Your task to perform on an android device: check android version Image 0: 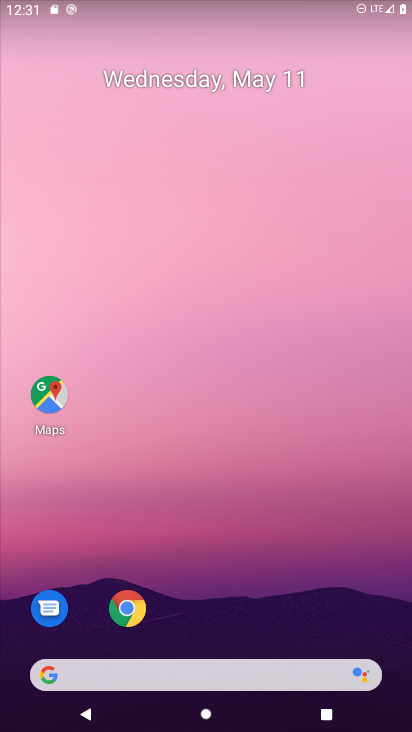
Step 0: drag from (247, 542) to (225, 2)
Your task to perform on an android device: check android version Image 1: 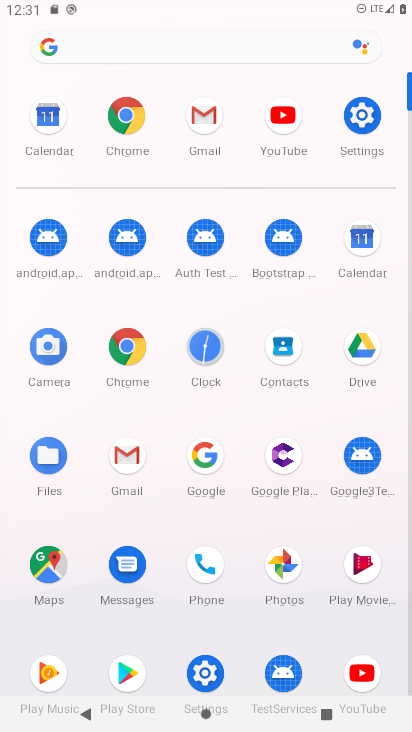
Step 1: click (365, 115)
Your task to perform on an android device: check android version Image 2: 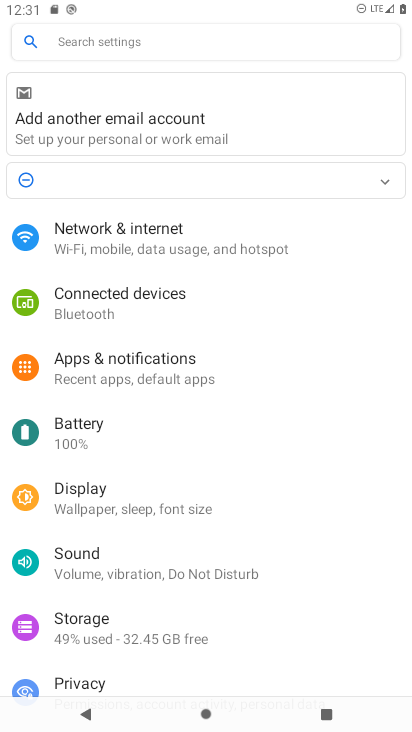
Step 2: drag from (262, 580) to (273, 136)
Your task to perform on an android device: check android version Image 3: 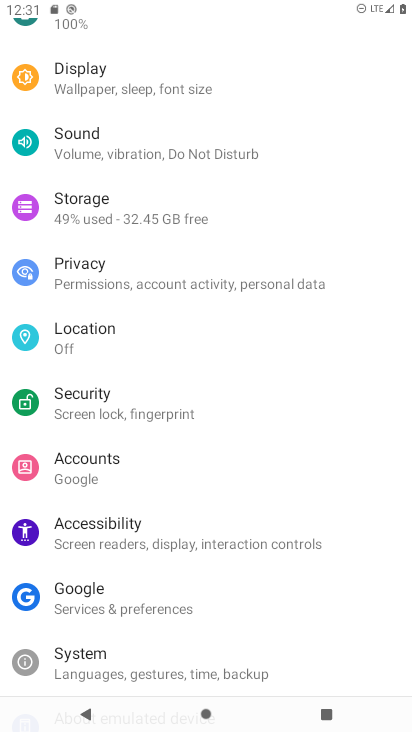
Step 3: drag from (209, 465) to (236, 199)
Your task to perform on an android device: check android version Image 4: 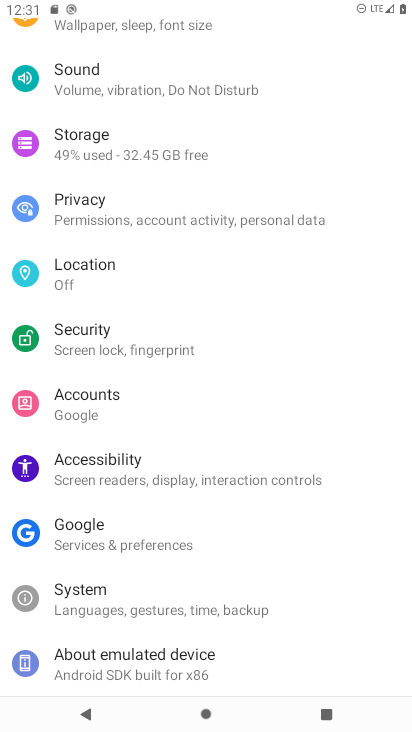
Step 4: click (153, 669)
Your task to perform on an android device: check android version Image 5: 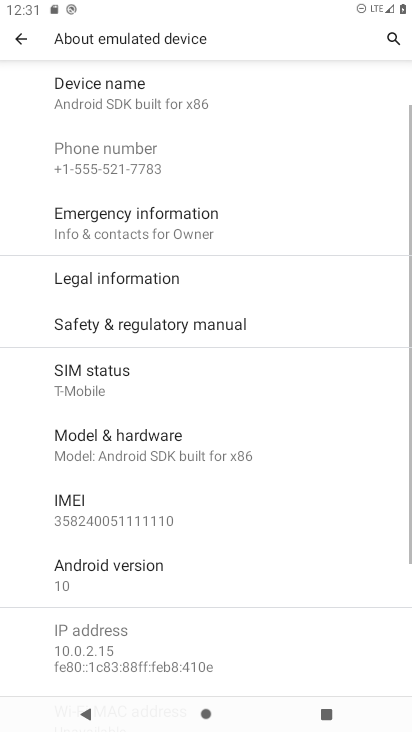
Step 5: click (167, 576)
Your task to perform on an android device: check android version Image 6: 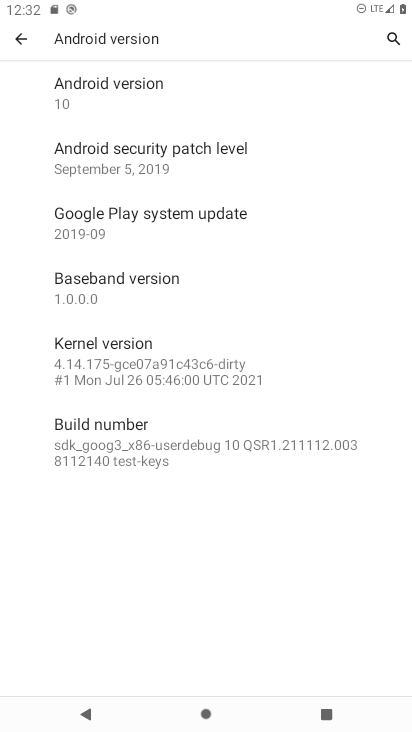
Step 6: task complete